Your task to perform on an android device: Open calendar and show me the first week of next month Image 0: 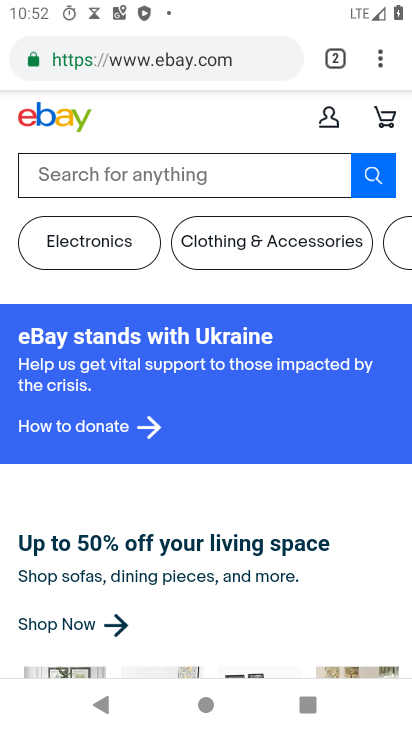
Step 0: press home button
Your task to perform on an android device: Open calendar and show me the first week of next month Image 1: 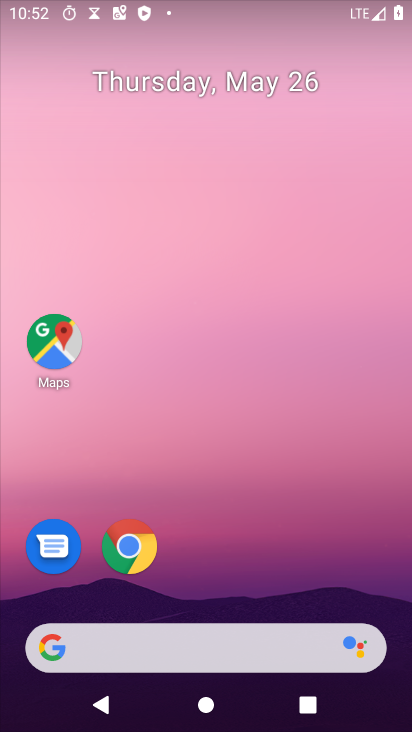
Step 1: drag from (348, 571) to (362, 128)
Your task to perform on an android device: Open calendar and show me the first week of next month Image 2: 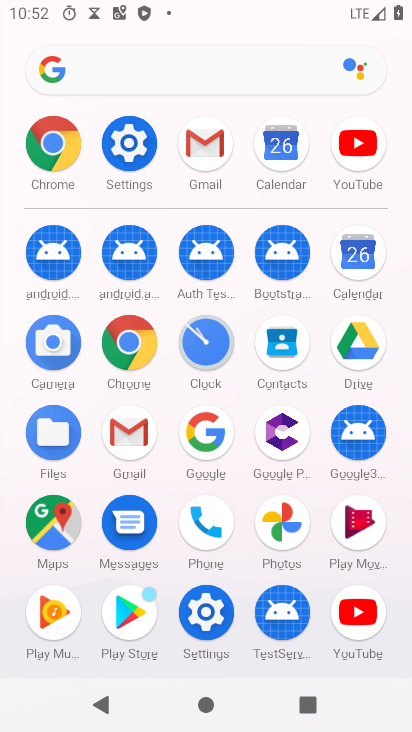
Step 2: click (357, 265)
Your task to perform on an android device: Open calendar and show me the first week of next month Image 3: 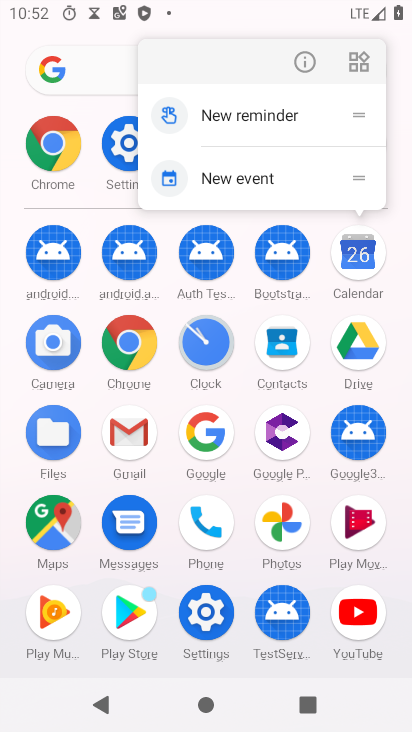
Step 3: click (357, 265)
Your task to perform on an android device: Open calendar and show me the first week of next month Image 4: 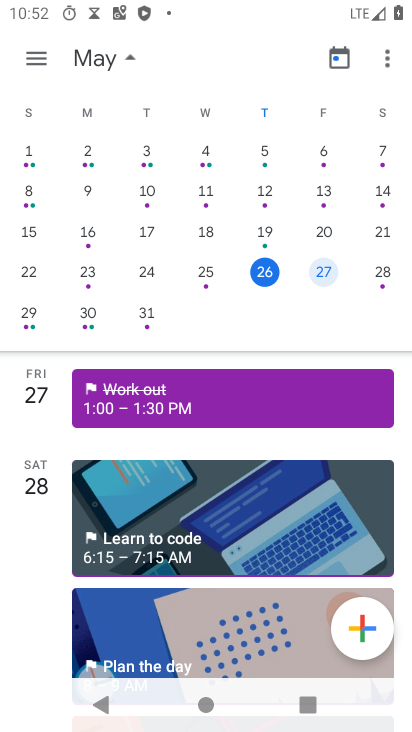
Step 4: drag from (360, 210) to (0, 173)
Your task to perform on an android device: Open calendar and show me the first week of next month Image 5: 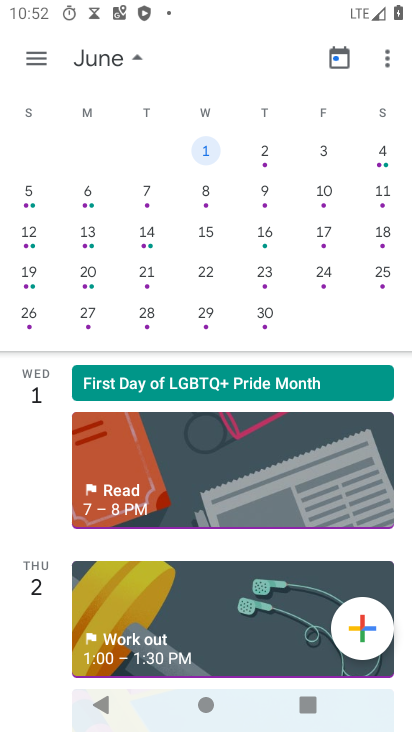
Step 5: click (200, 153)
Your task to perform on an android device: Open calendar and show me the first week of next month Image 6: 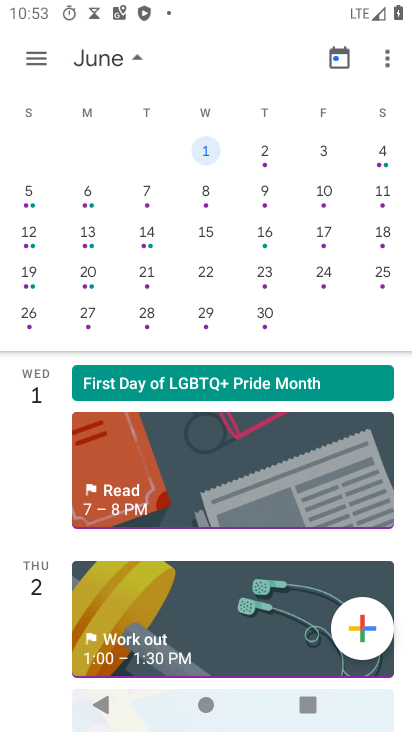
Step 6: task complete